Your task to perform on an android device: Open notification settings Image 0: 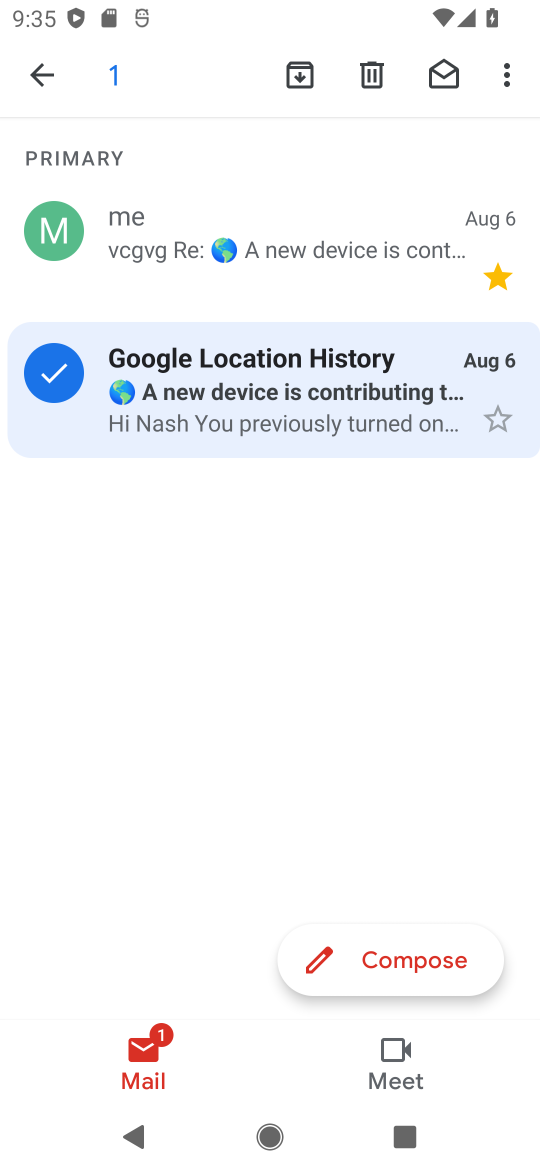
Step 0: press home button
Your task to perform on an android device: Open notification settings Image 1: 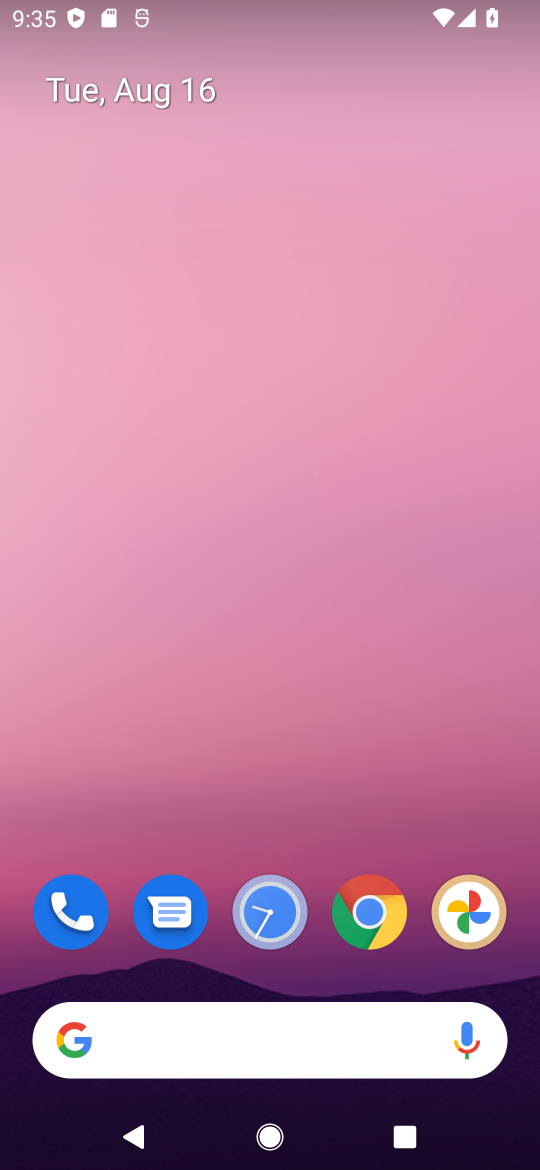
Step 1: drag from (269, 839) to (93, 98)
Your task to perform on an android device: Open notification settings Image 2: 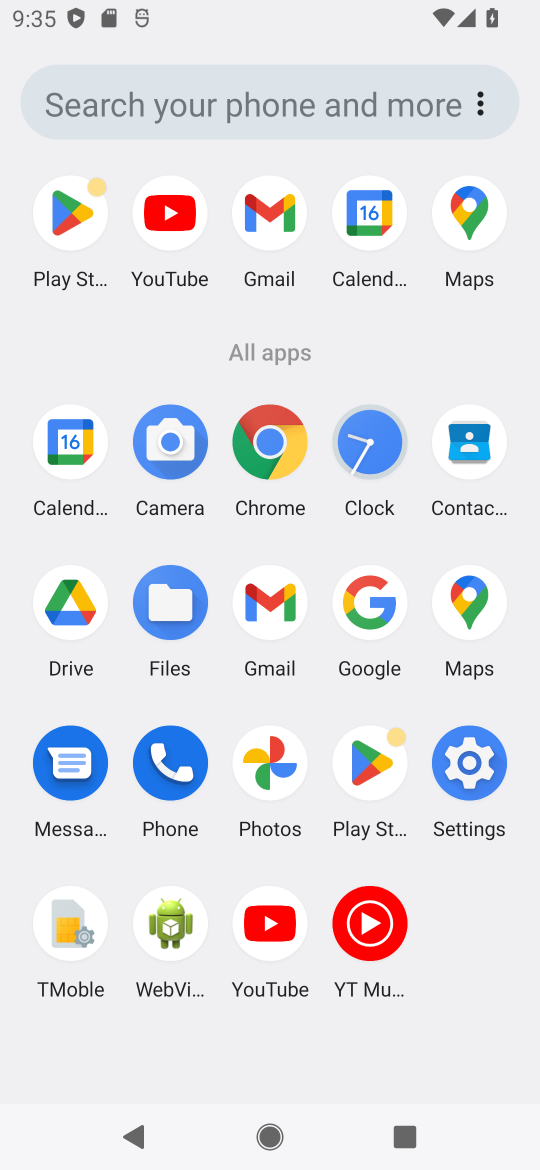
Step 2: click (462, 739)
Your task to perform on an android device: Open notification settings Image 3: 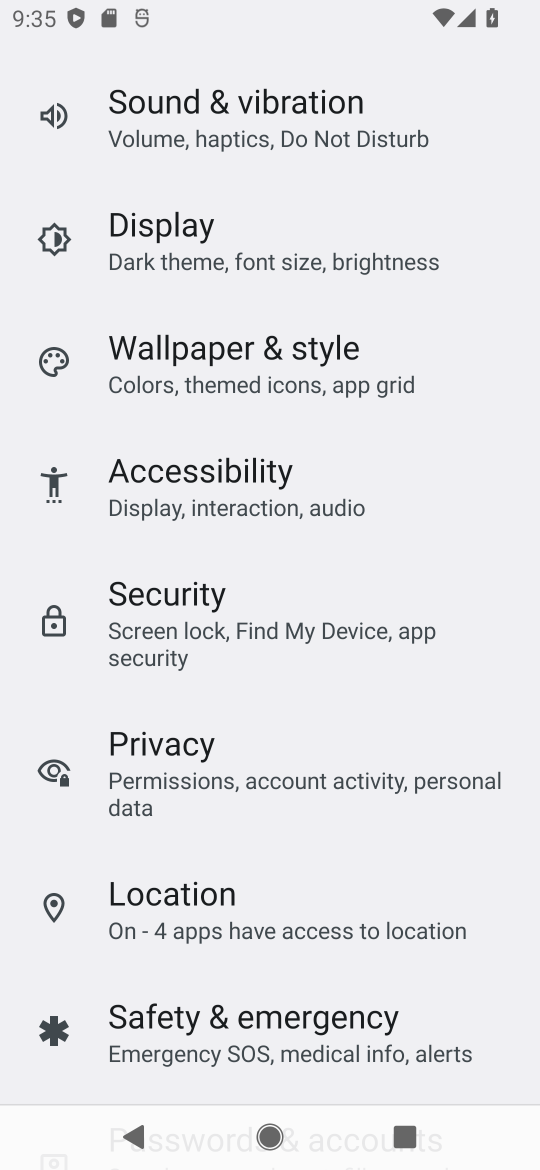
Step 3: drag from (76, 169) to (269, 835)
Your task to perform on an android device: Open notification settings Image 4: 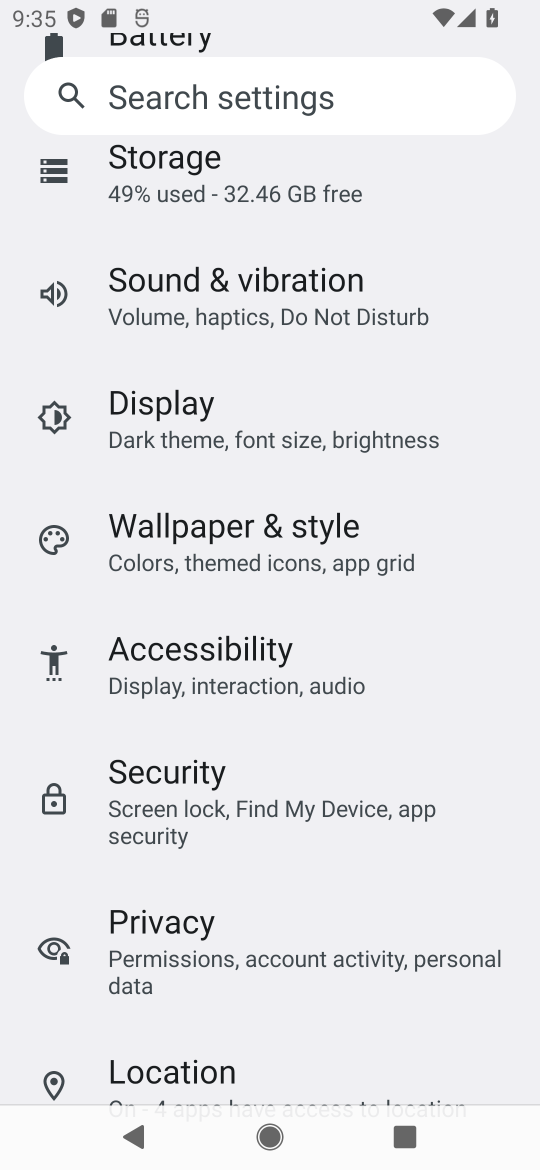
Step 4: drag from (68, 209) to (331, 902)
Your task to perform on an android device: Open notification settings Image 5: 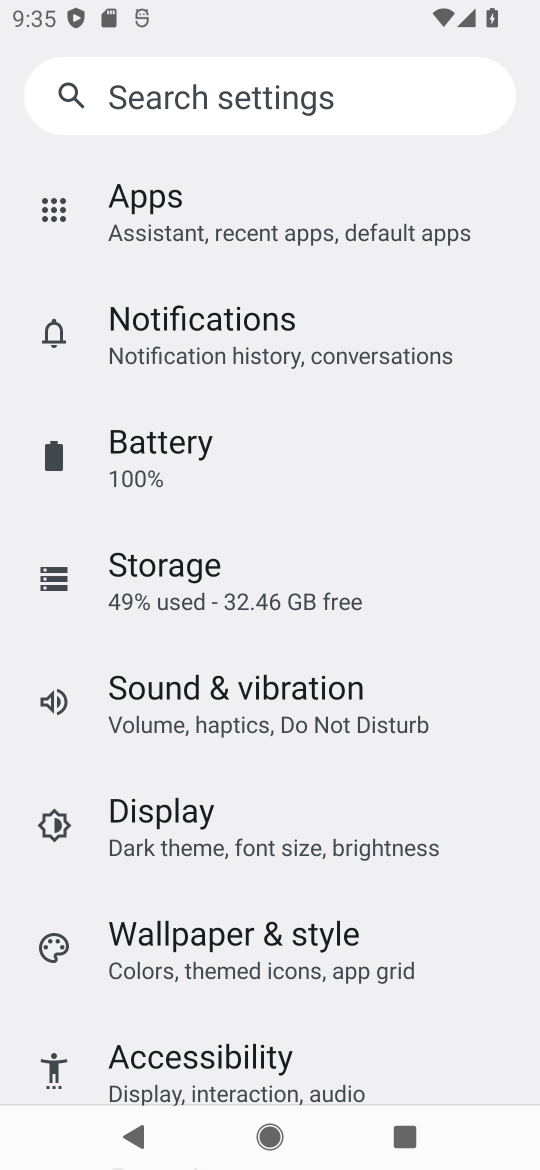
Step 5: click (250, 321)
Your task to perform on an android device: Open notification settings Image 6: 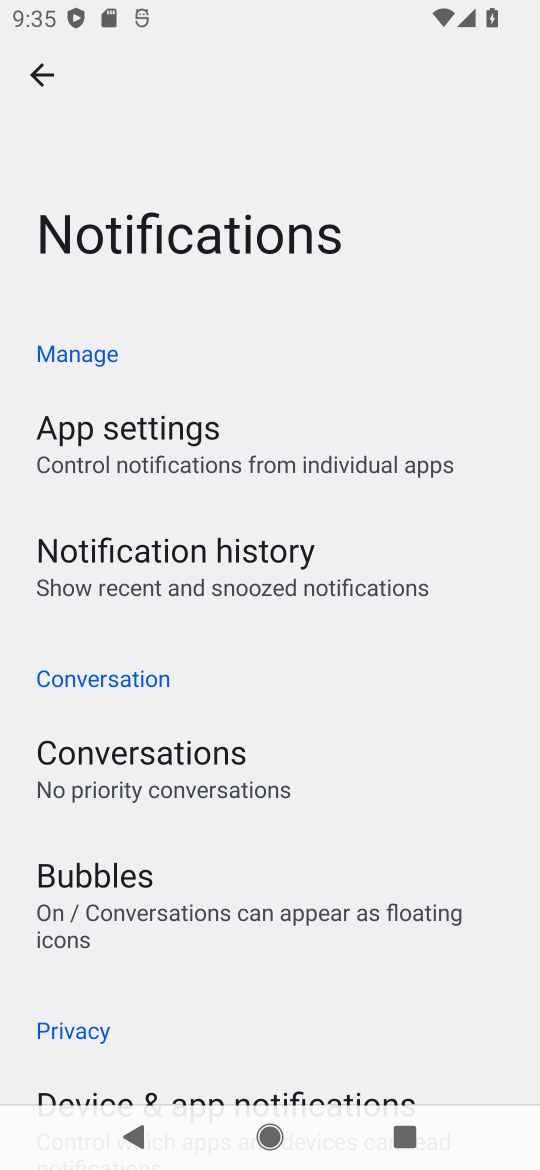
Step 6: task complete